Your task to perform on an android device: turn notification dots on Image 0: 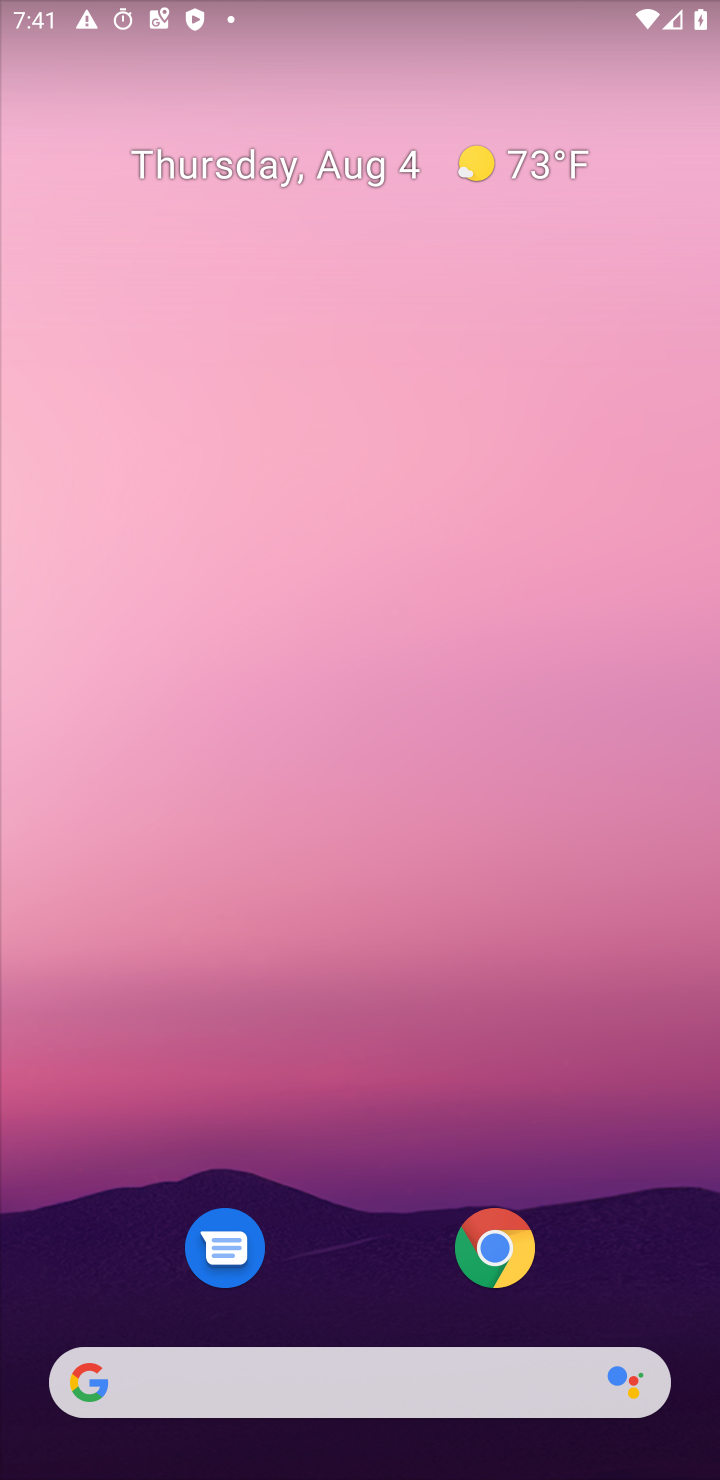
Step 0: drag from (436, 1409) to (275, 303)
Your task to perform on an android device: turn notification dots on Image 1: 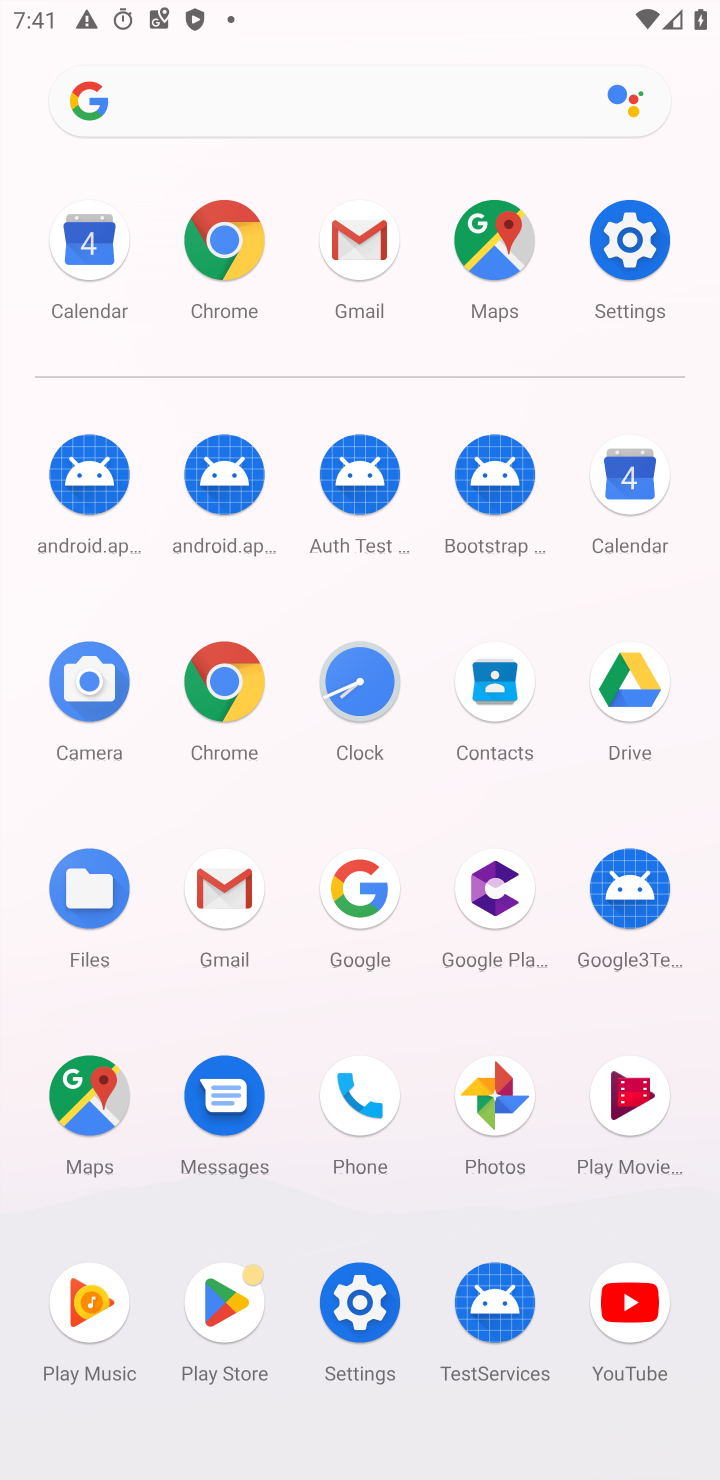
Step 1: click (634, 256)
Your task to perform on an android device: turn notification dots on Image 2: 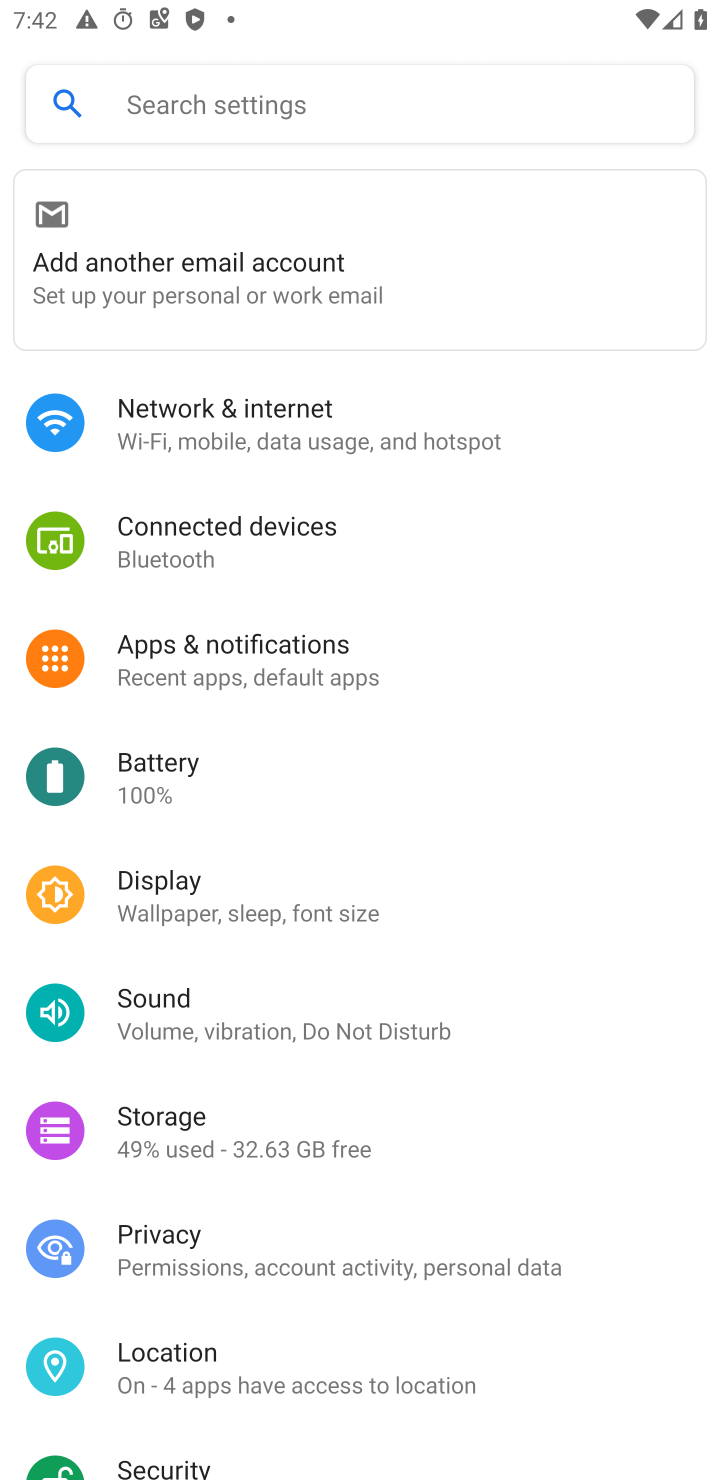
Step 2: click (245, 92)
Your task to perform on an android device: turn notification dots on Image 3: 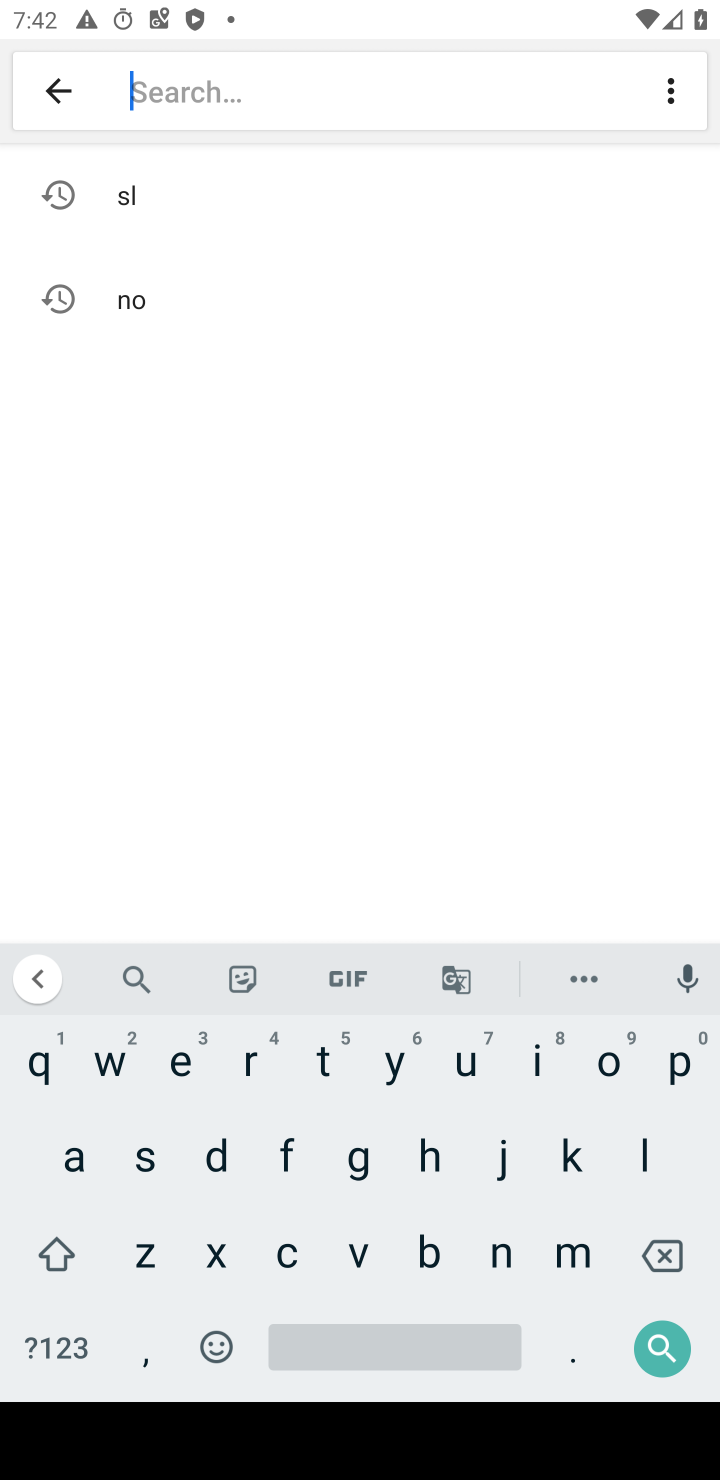
Step 3: click (214, 1157)
Your task to perform on an android device: turn notification dots on Image 4: 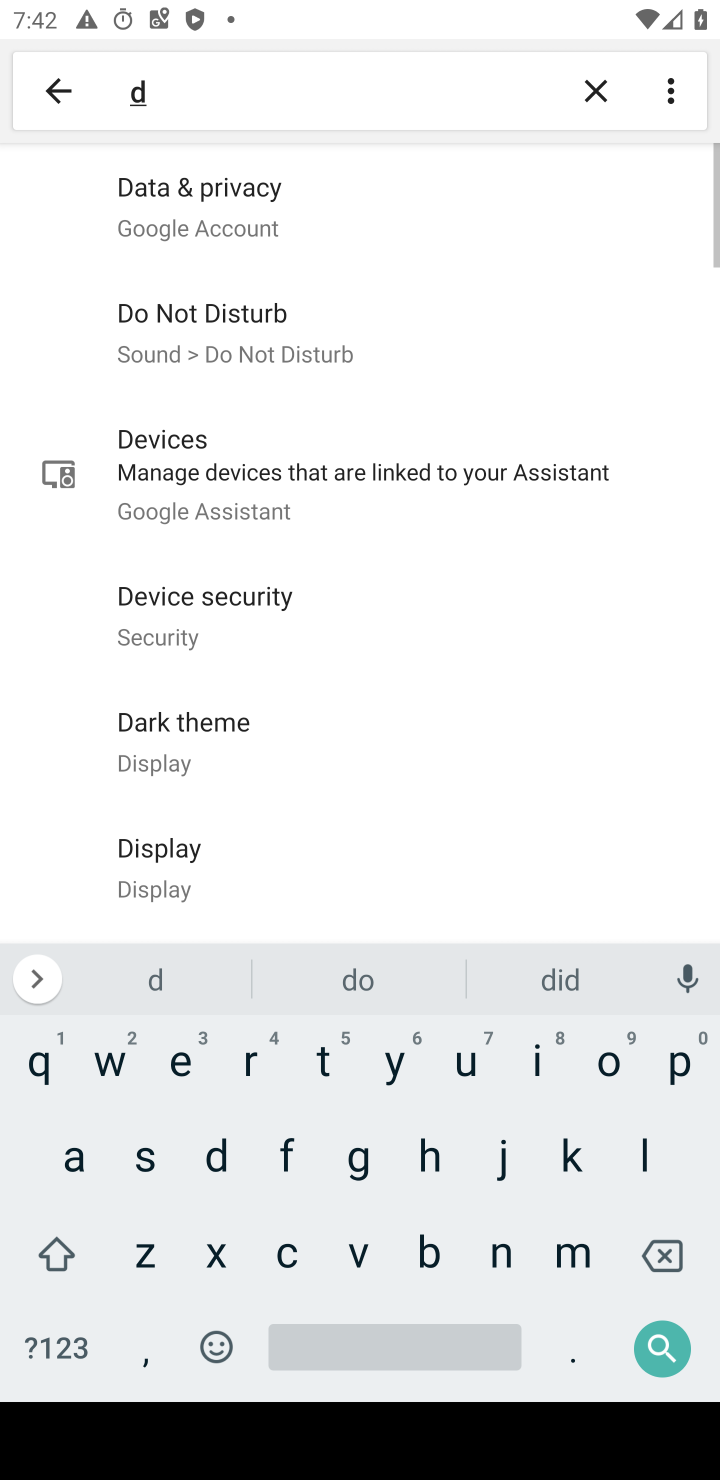
Step 4: click (615, 1060)
Your task to perform on an android device: turn notification dots on Image 5: 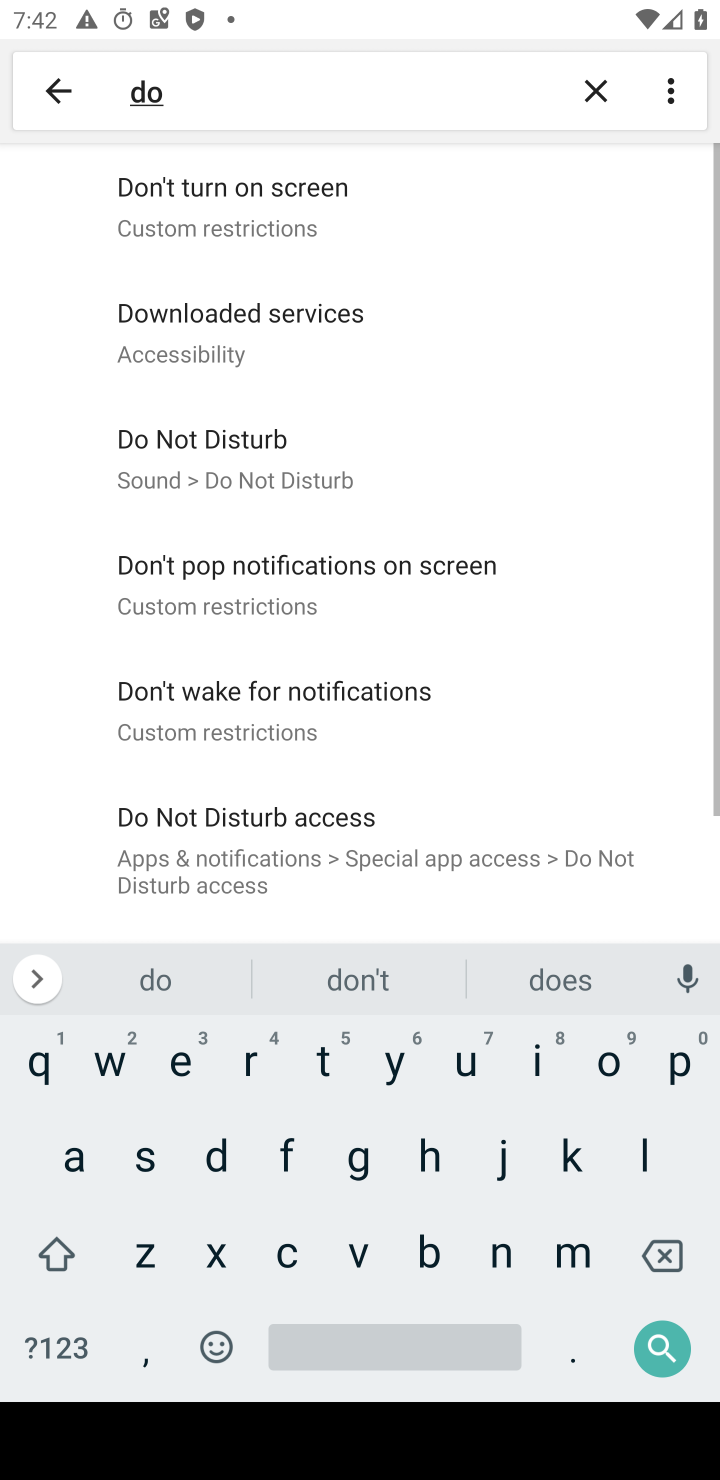
Step 5: click (323, 1062)
Your task to perform on an android device: turn notification dots on Image 6: 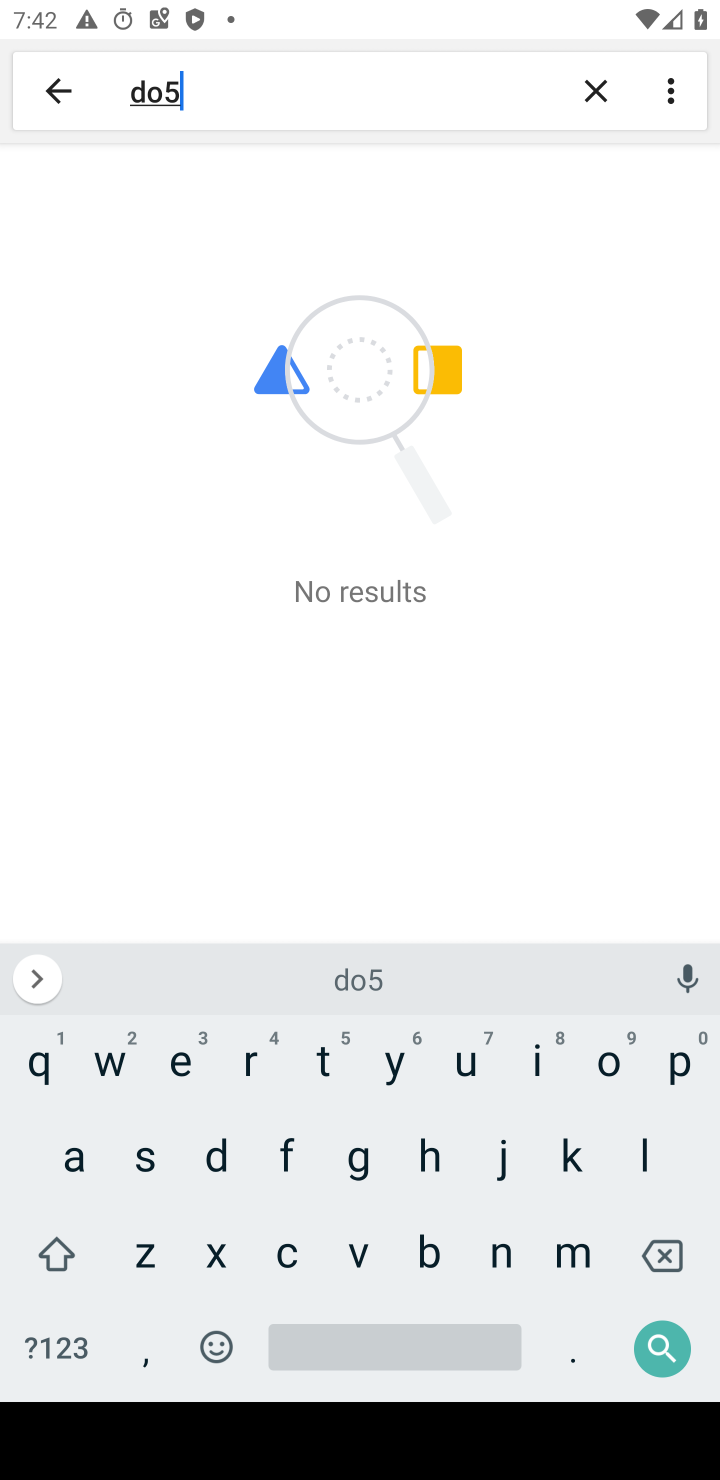
Step 6: click (673, 1273)
Your task to perform on an android device: turn notification dots on Image 7: 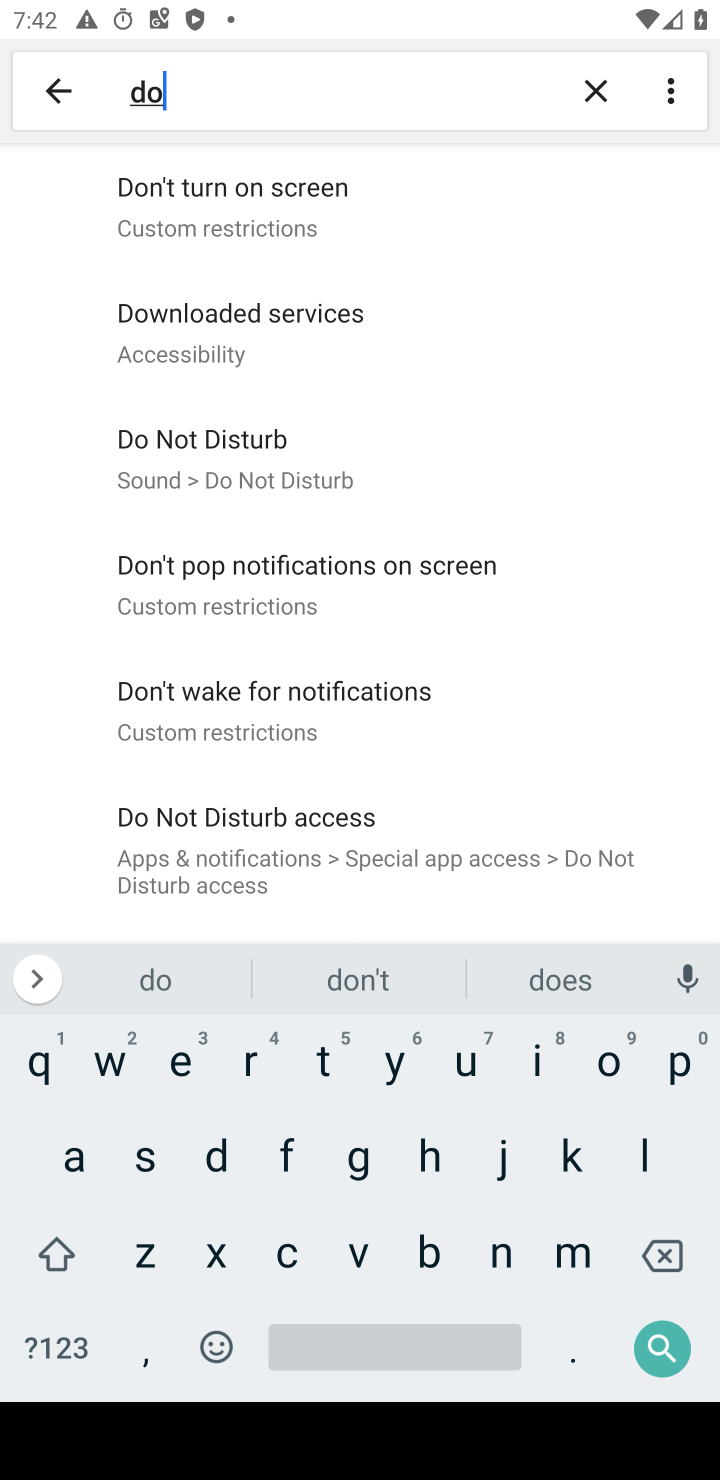
Step 7: click (320, 1062)
Your task to perform on an android device: turn notification dots on Image 8: 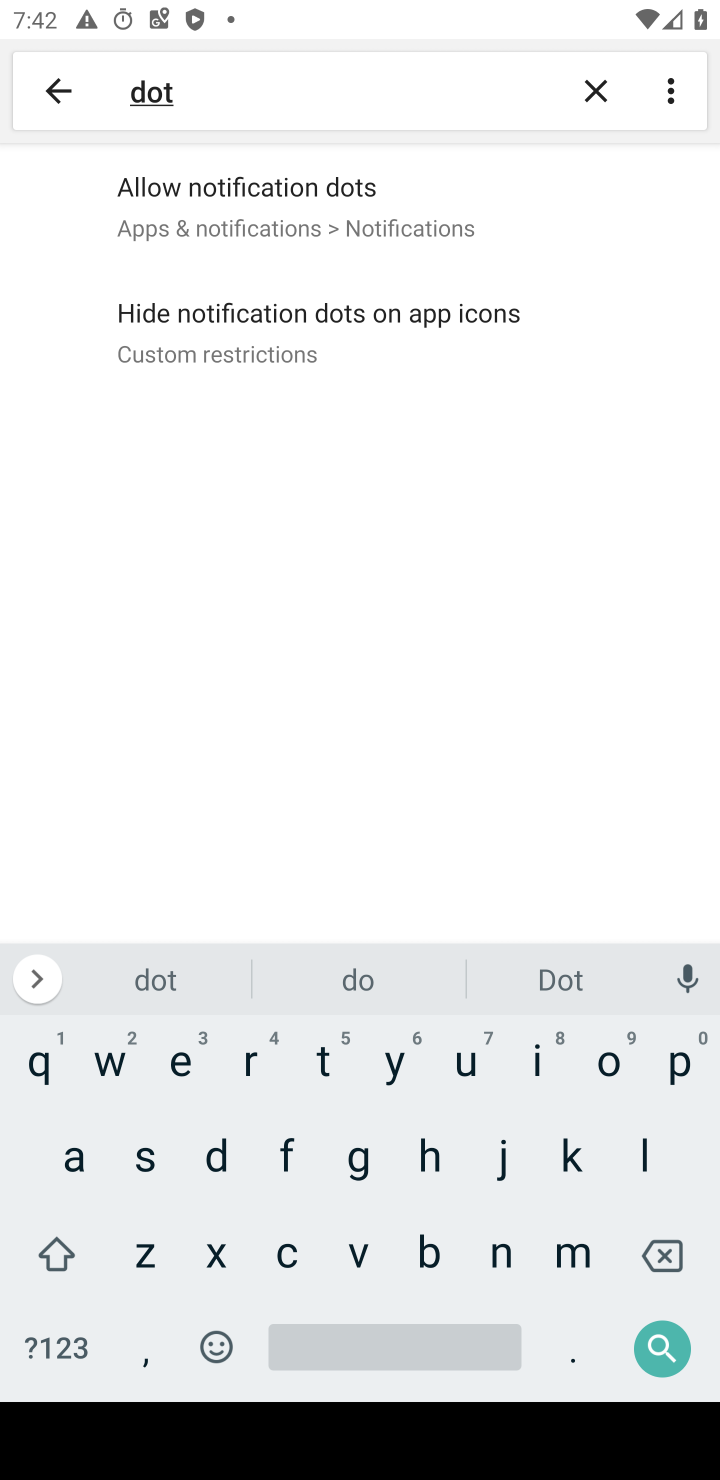
Step 8: click (335, 205)
Your task to perform on an android device: turn notification dots on Image 9: 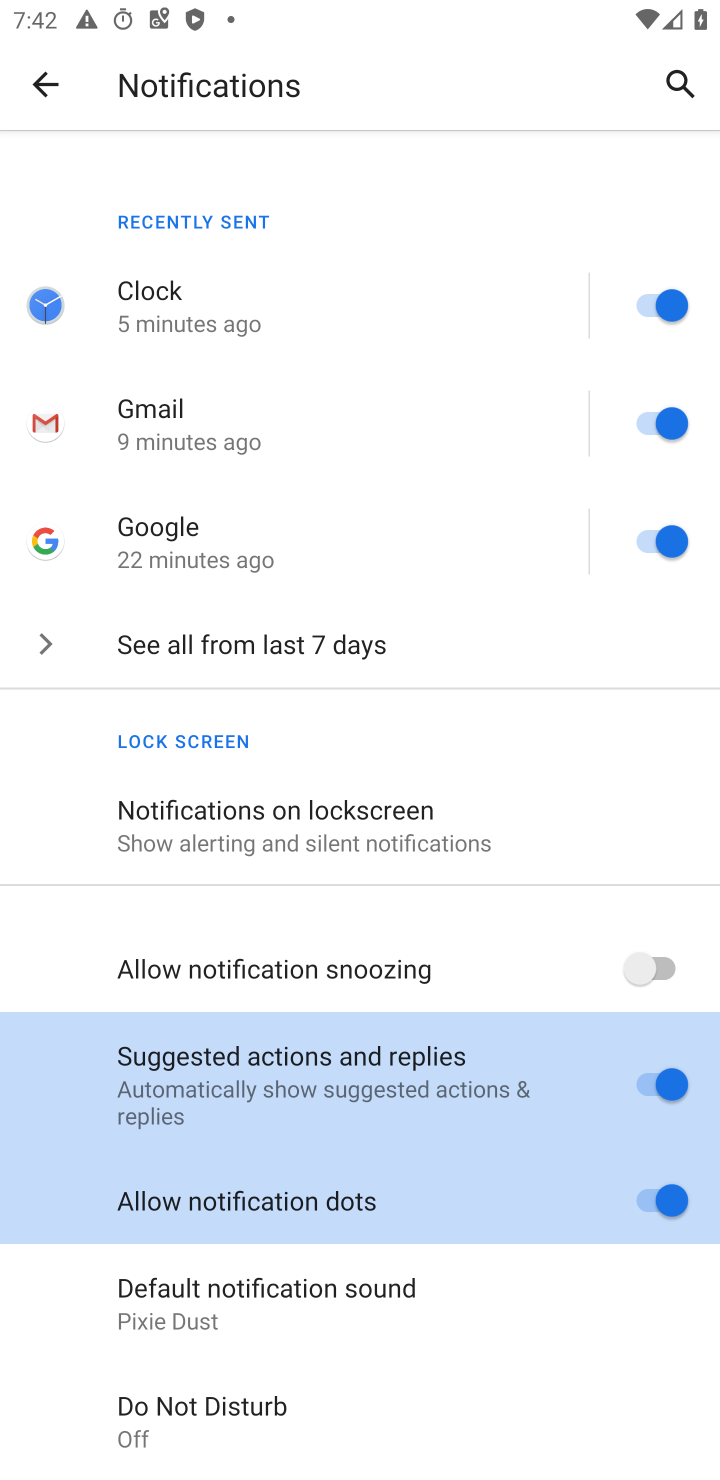
Step 9: click (323, 1183)
Your task to perform on an android device: turn notification dots on Image 10: 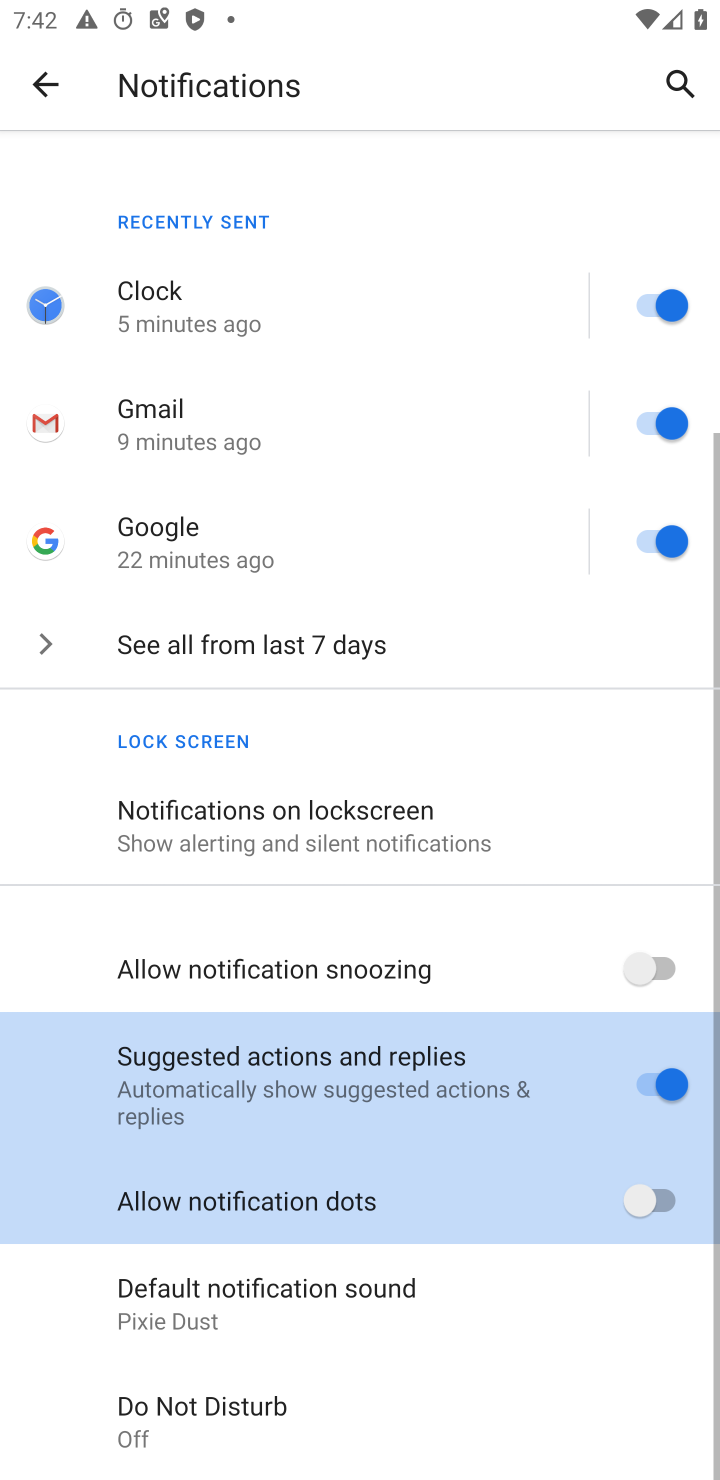
Step 10: click (323, 1183)
Your task to perform on an android device: turn notification dots on Image 11: 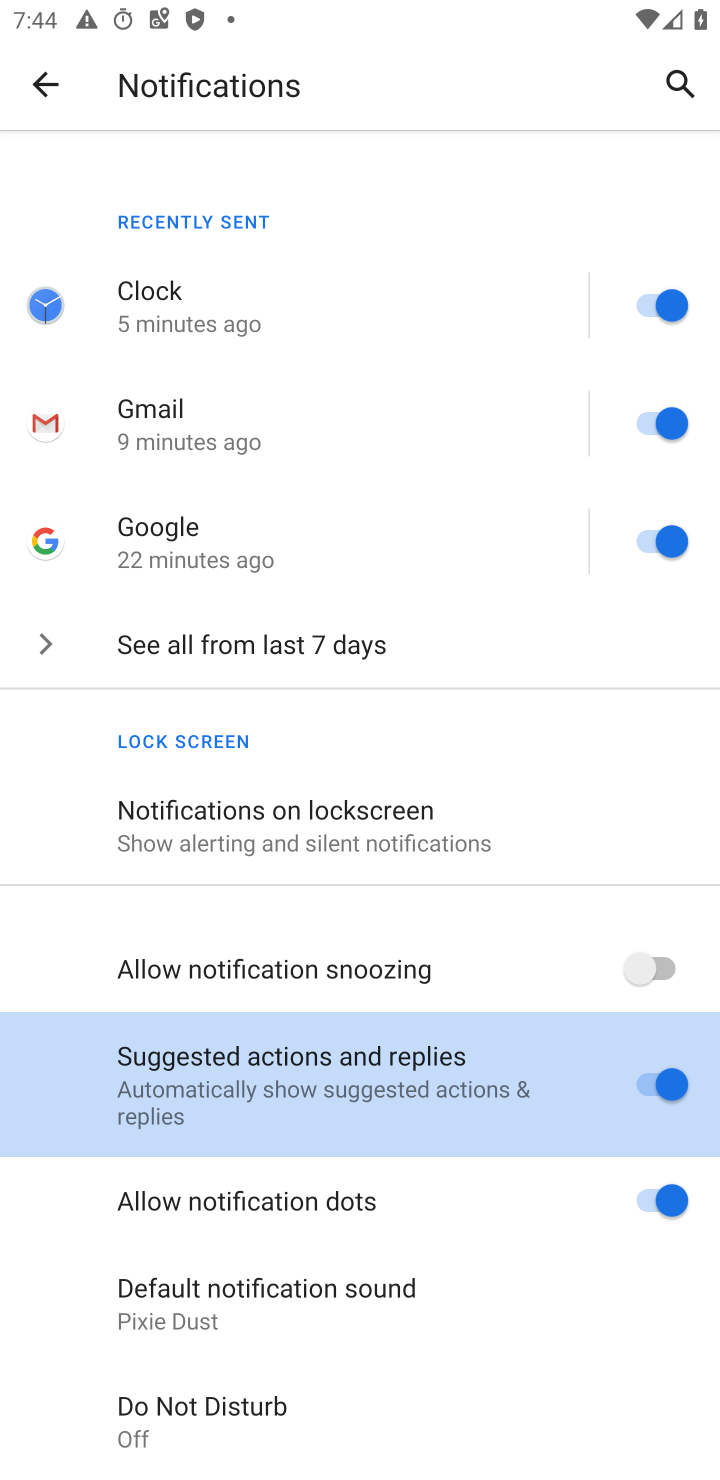
Step 11: task complete